Your task to perform on an android device: turn on improve location accuracy Image 0: 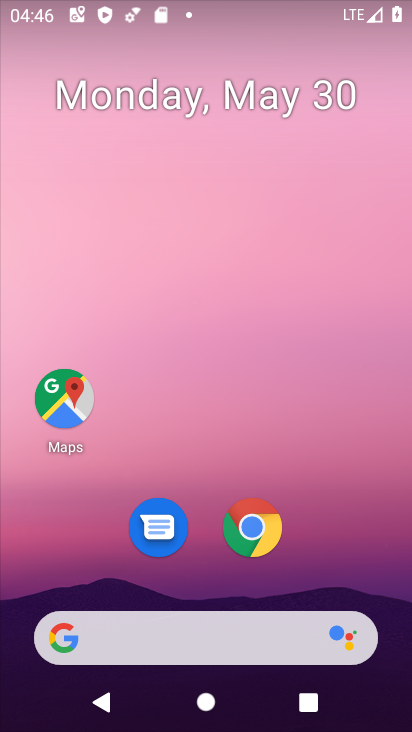
Step 0: drag from (222, 723) to (225, 16)
Your task to perform on an android device: turn on improve location accuracy Image 1: 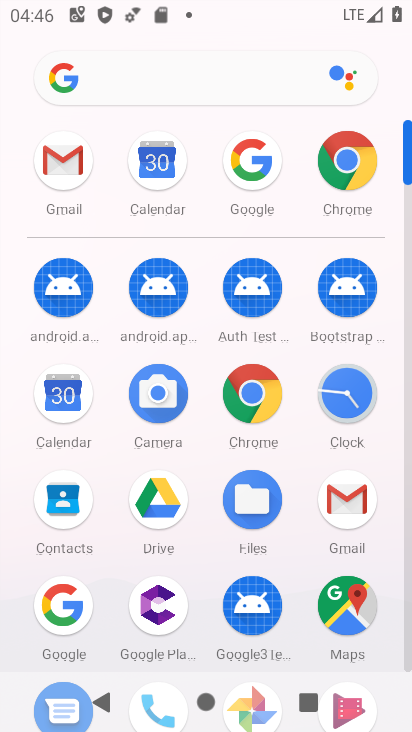
Step 1: drag from (211, 555) to (211, 110)
Your task to perform on an android device: turn on improve location accuracy Image 2: 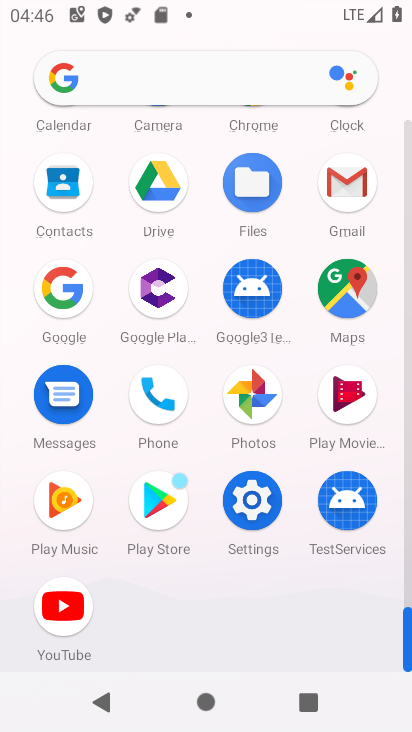
Step 2: click (260, 503)
Your task to perform on an android device: turn on improve location accuracy Image 3: 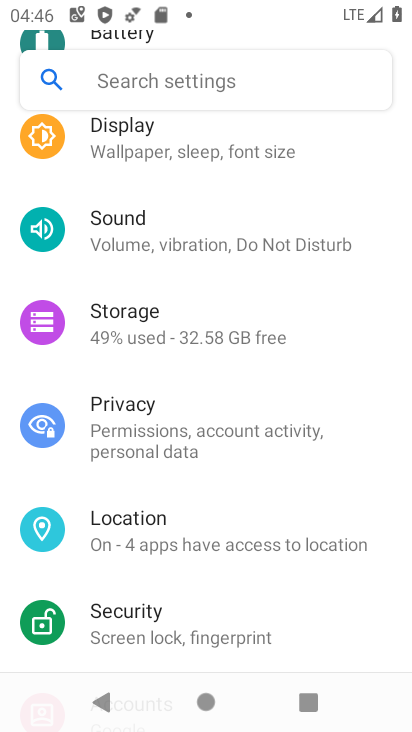
Step 3: click (134, 539)
Your task to perform on an android device: turn on improve location accuracy Image 4: 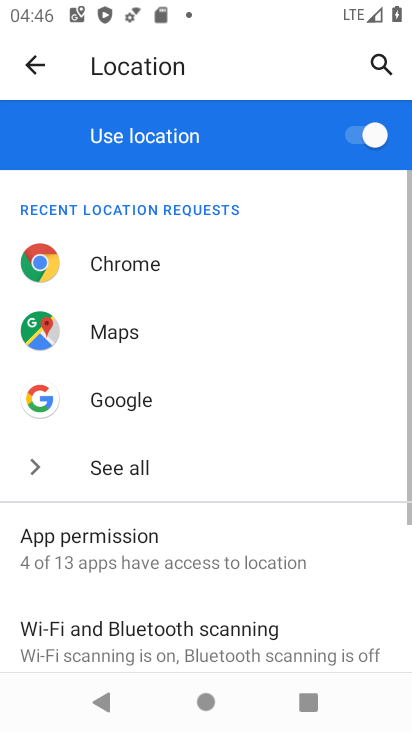
Step 4: drag from (206, 659) to (207, 225)
Your task to perform on an android device: turn on improve location accuracy Image 5: 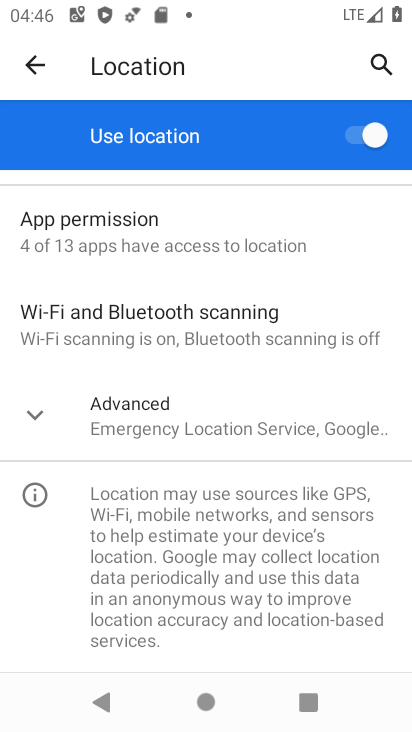
Step 5: click (153, 429)
Your task to perform on an android device: turn on improve location accuracy Image 6: 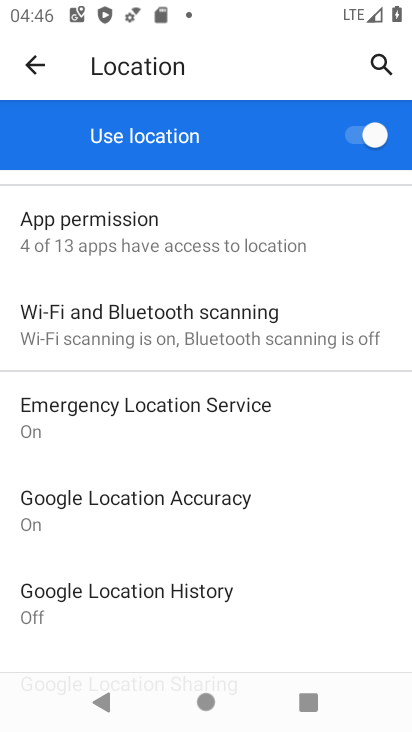
Step 6: click (130, 494)
Your task to perform on an android device: turn on improve location accuracy Image 7: 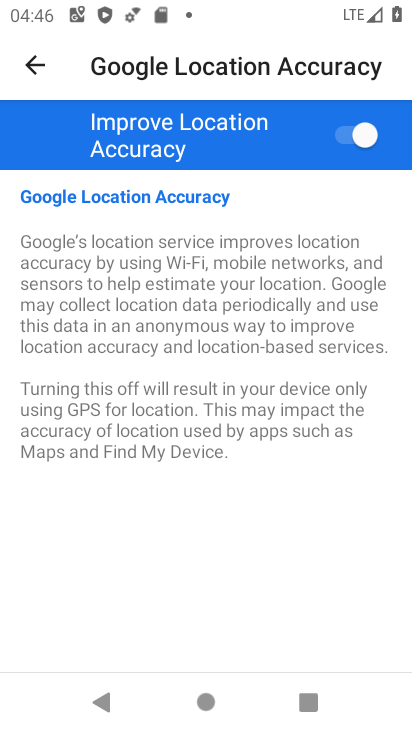
Step 7: task complete